Your task to perform on an android device: see creations saved in the google photos Image 0: 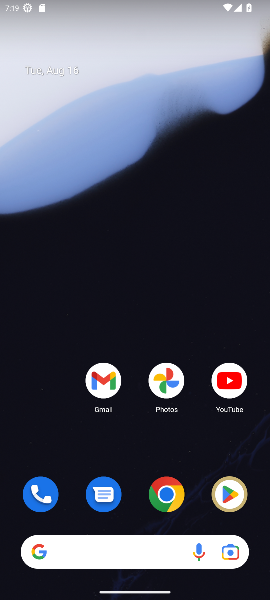
Step 0: drag from (37, 421) to (62, 139)
Your task to perform on an android device: see creations saved in the google photos Image 1: 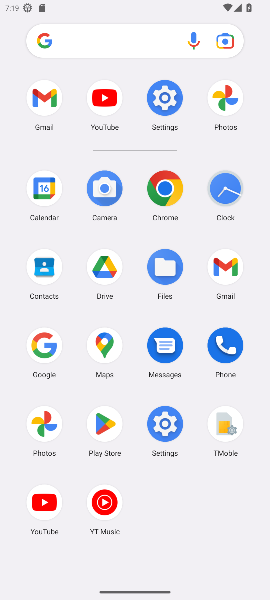
Step 1: click (215, 109)
Your task to perform on an android device: see creations saved in the google photos Image 2: 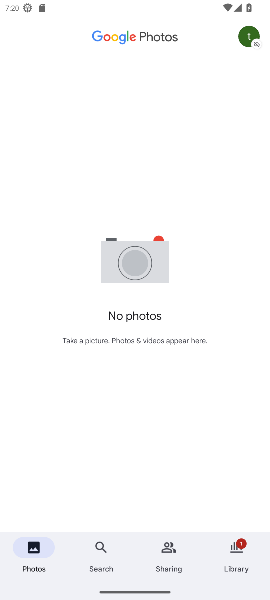
Step 2: task complete